Your task to perform on an android device: Open network settings Image 0: 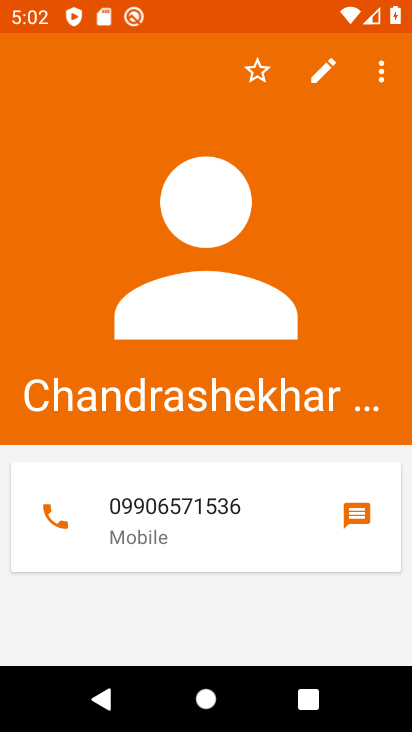
Step 0: press home button
Your task to perform on an android device: Open network settings Image 1: 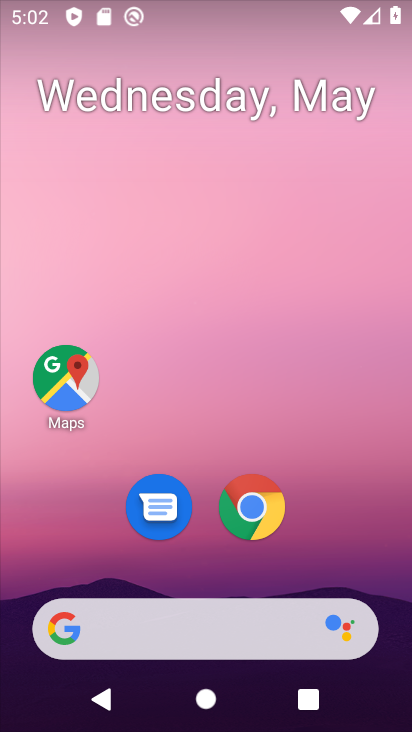
Step 1: drag from (345, 526) to (230, 75)
Your task to perform on an android device: Open network settings Image 2: 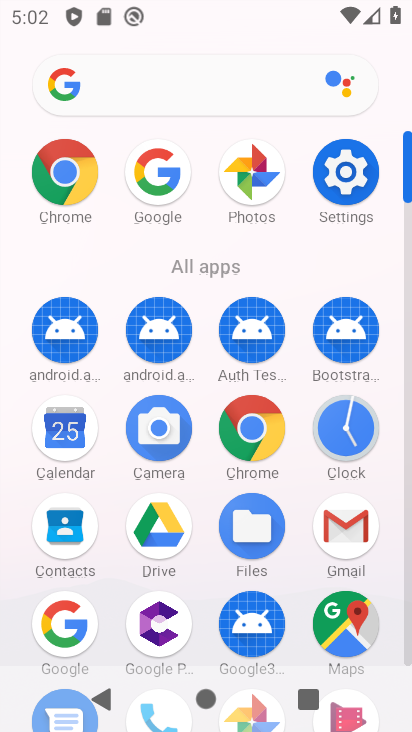
Step 2: click (344, 170)
Your task to perform on an android device: Open network settings Image 3: 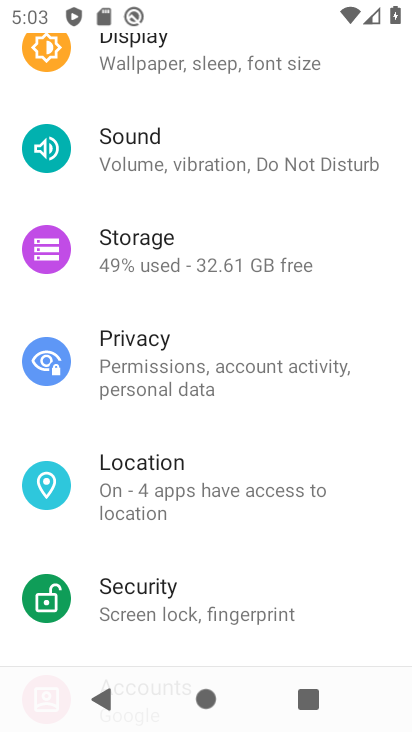
Step 3: drag from (226, 328) to (271, 483)
Your task to perform on an android device: Open network settings Image 4: 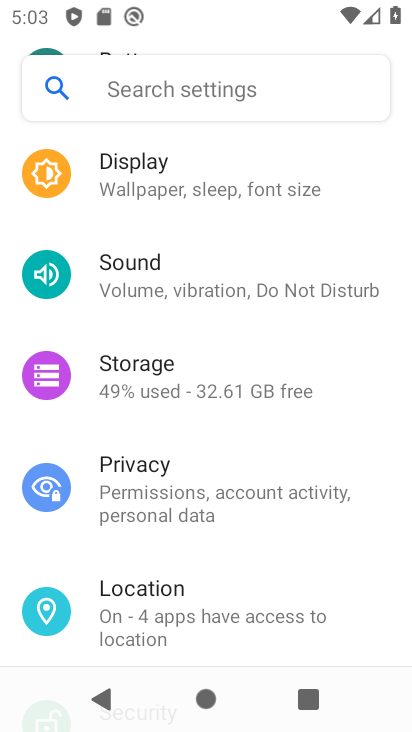
Step 4: drag from (232, 229) to (293, 404)
Your task to perform on an android device: Open network settings Image 5: 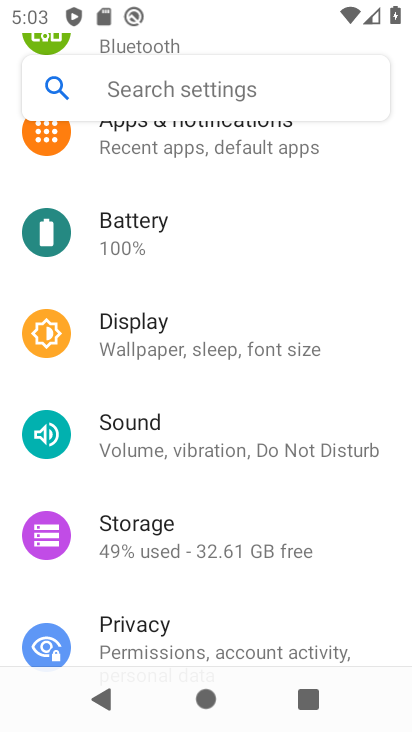
Step 5: drag from (237, 257) to (272, 415)
Your task to perform on an android device: Open network settings Image 6: 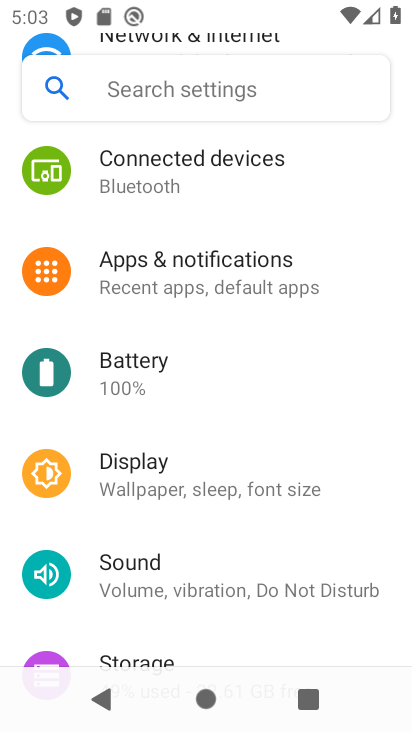
Step 6: drag from (202, 218) to (259, 361)
Your task to perform on an android device: Open network settings Image 7: 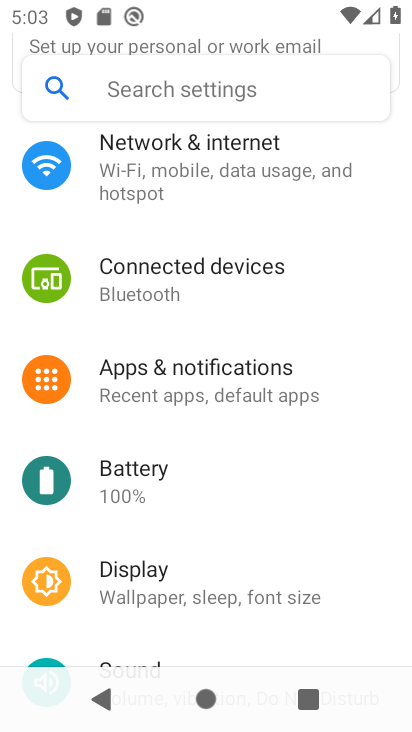
Step 7: click (190, 160)
Your task to perform on an android device: Open network settings Image 8: 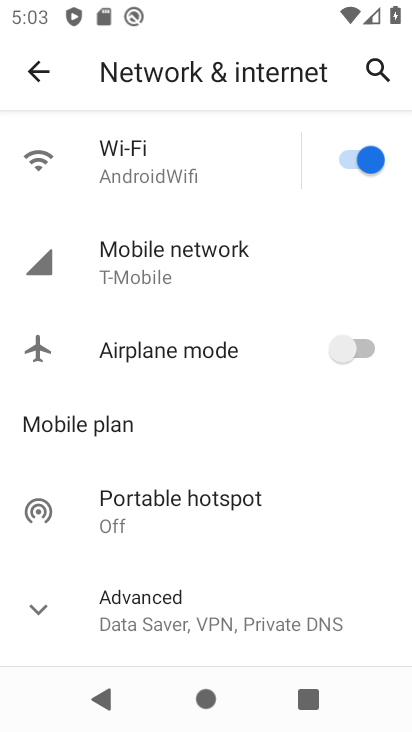
Step 8: click (125, 178)
Your task to perform on an android device: Open network settings Image 9: 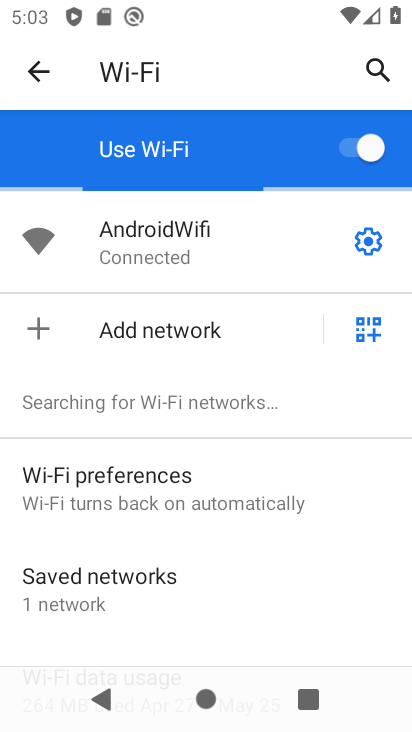
Step 9: task complete